Your task to perform on an android device: refresh tabs in the chrome app Image 0: 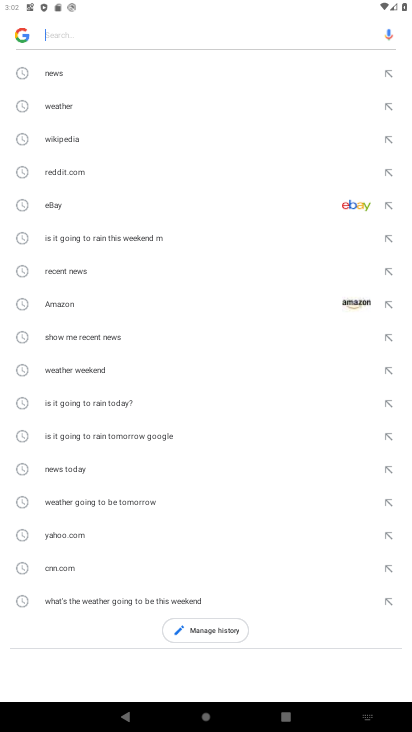
Step 0: press home button
Your task to perform on an android device: refresh tabs in the chrome app Image 1: 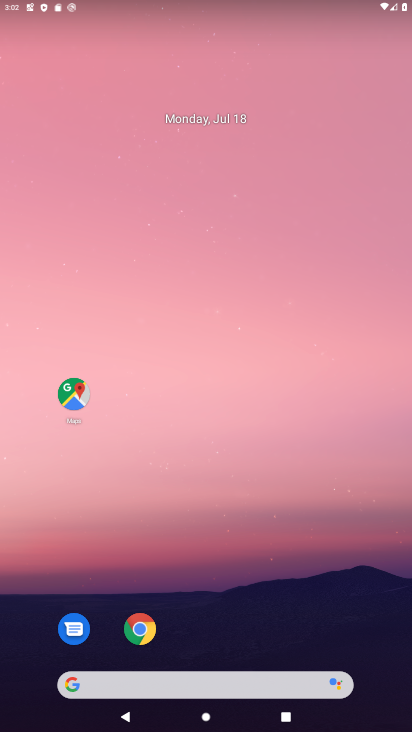
Step 1: click (141, 632)
Your task to perform on an android device: refresh tabs in the chrome app Image 2: 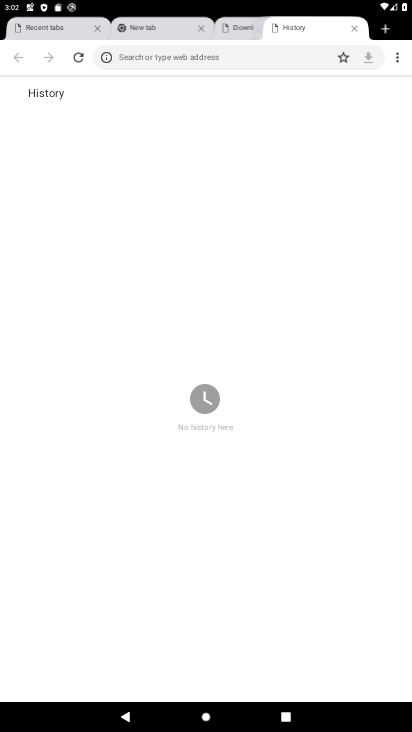
Step 2: click (83, 58)
Your task to perform on an android device: refresh tabs in the chrome app Image 3: 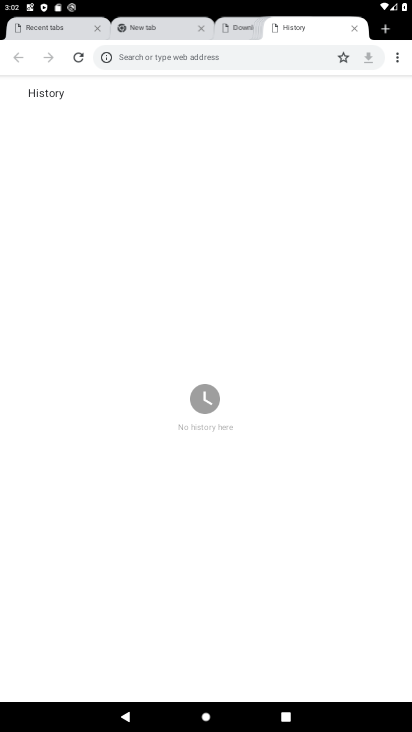
Step 3: click (83, 60)
Your task to perform on an android device: refresh tabs in the chrome app Image 4: 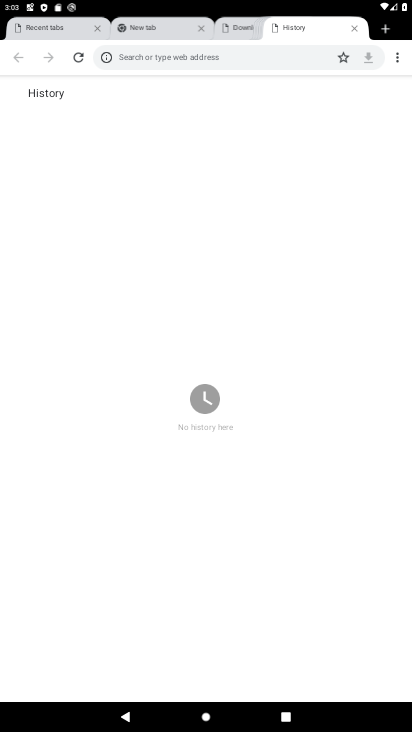
Step 4: task complete